Your task to perform on an android device: Open privacy settings Image 0: 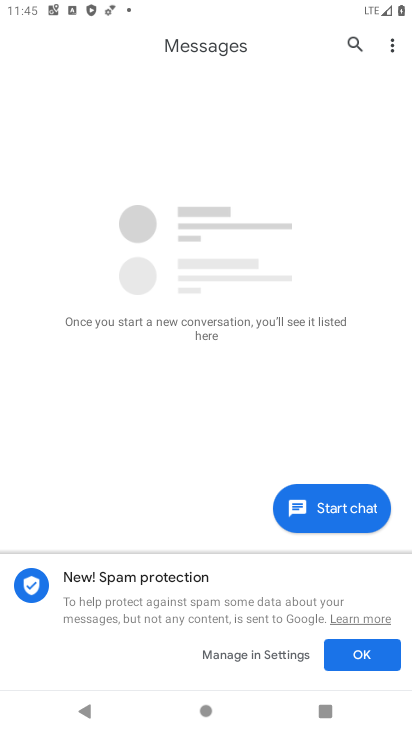
Step 0: press home button
Your task to perform on an android device: Open privacy settings Image 1: 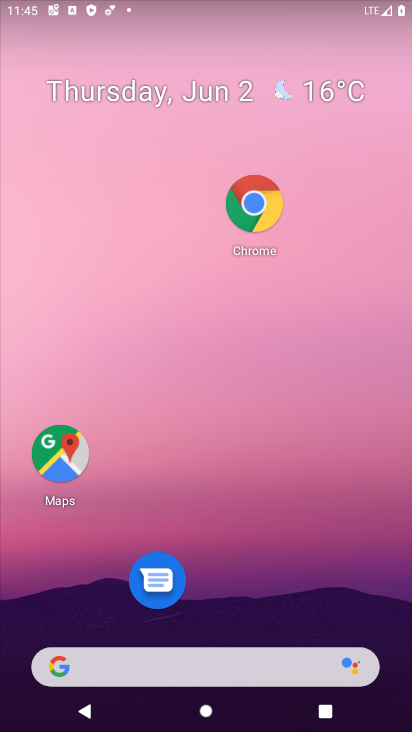
Step 1: drag from (236, 441) to (265, 112)
Your task to perform on an android device: Open privacy settings Image 2: 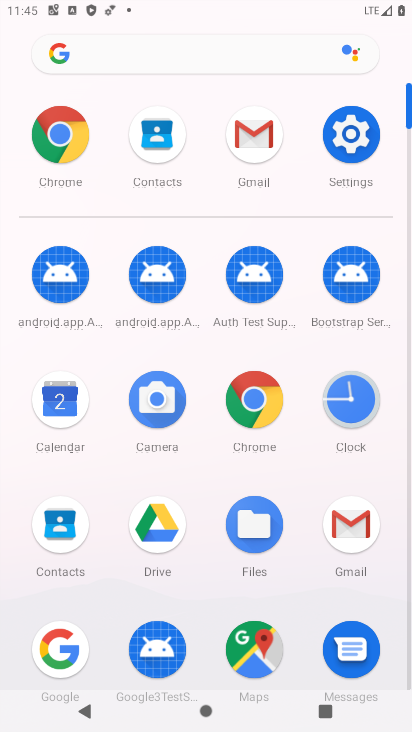
Step 2: click (360, 148)
Your task to perform on an android device: Open privacy settings Image 3: 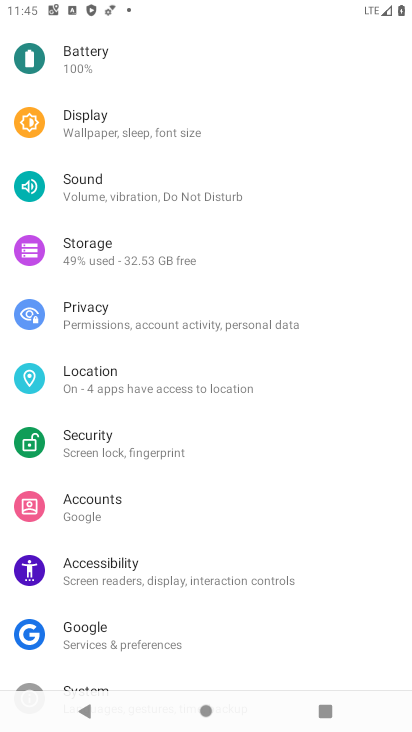
Step 3: drag from (175, 550) to (223, 231)
Your task to perform on an android device: Open privacy settings Image 4: 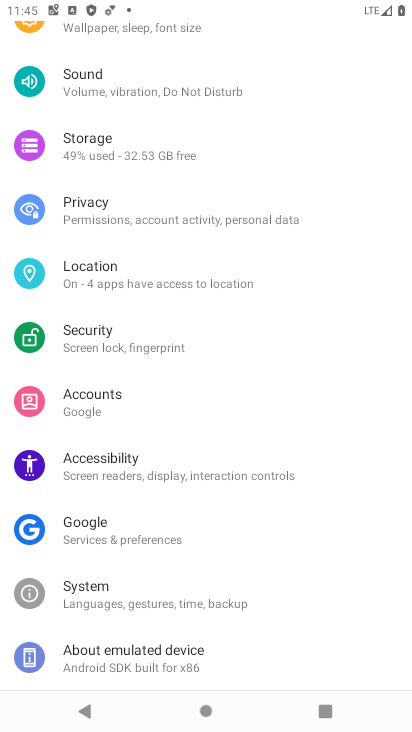
Step 4: click (148, 219)
Your task to perform on an android device: Open privacy settings Image 5: 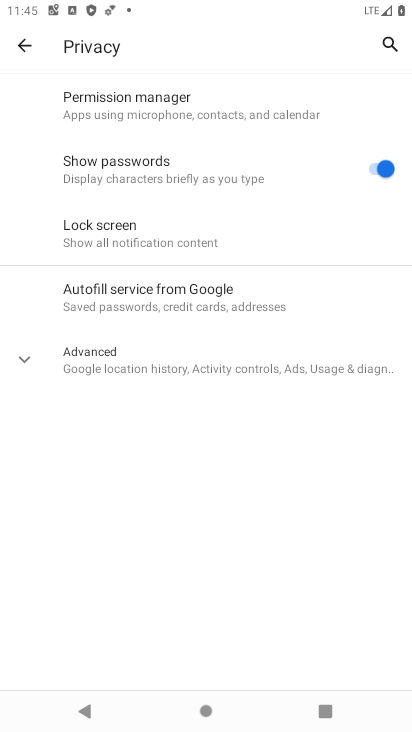
Step 5: task complete